Your task to perform on an android device: Add "razer blackwidow" to the cart on newegg Image 0: 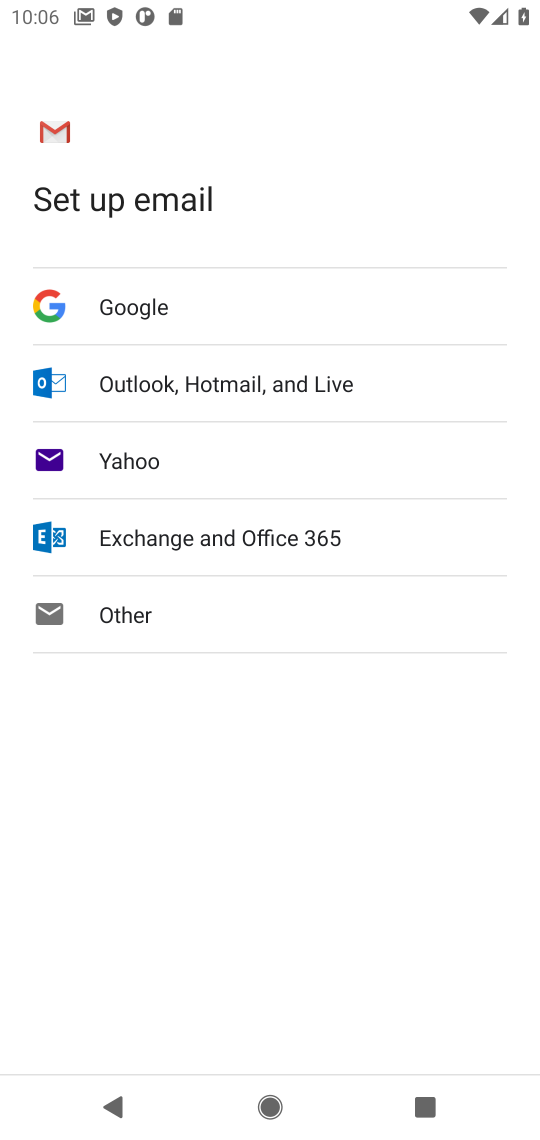
Step 0: press home button
Your task to perform on an android device: Add "razer blackwidow" to the cart on newegg Image 1: 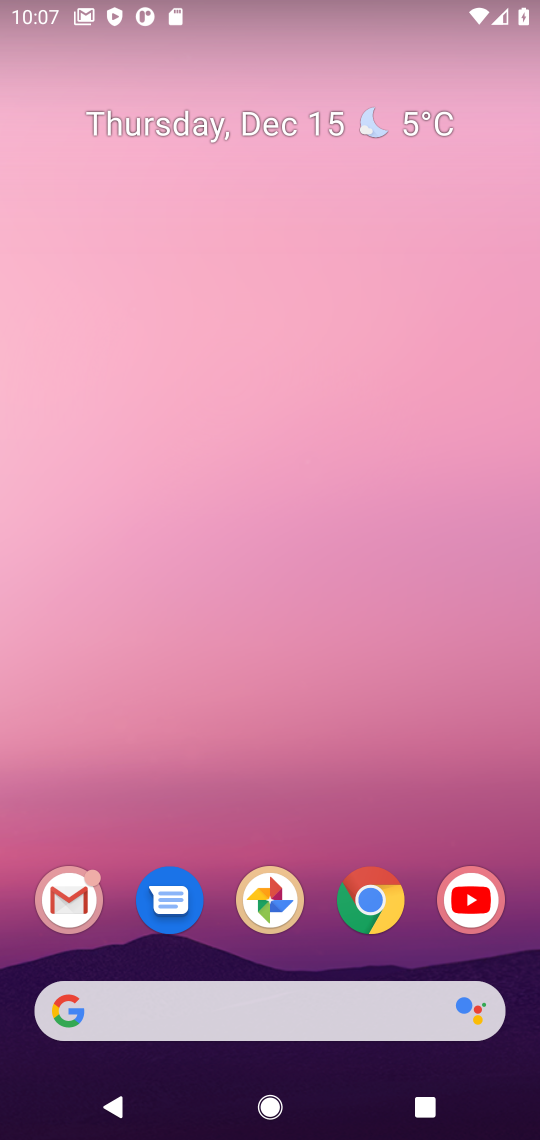
Step 1: click (367, 910)
Your task to perform on an android device: Add "razer blackwidow" to the cart on newegg Image 2: 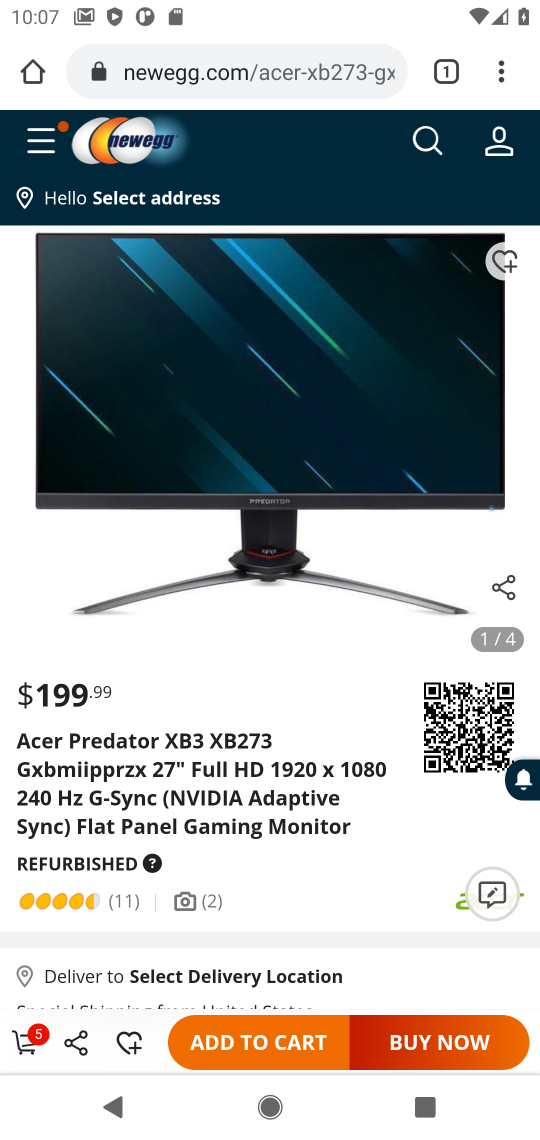
Step 2: click (207, 71)
Your task to perform on an android device: Add "razer blackwidow" to the cart on newegg Image 3: 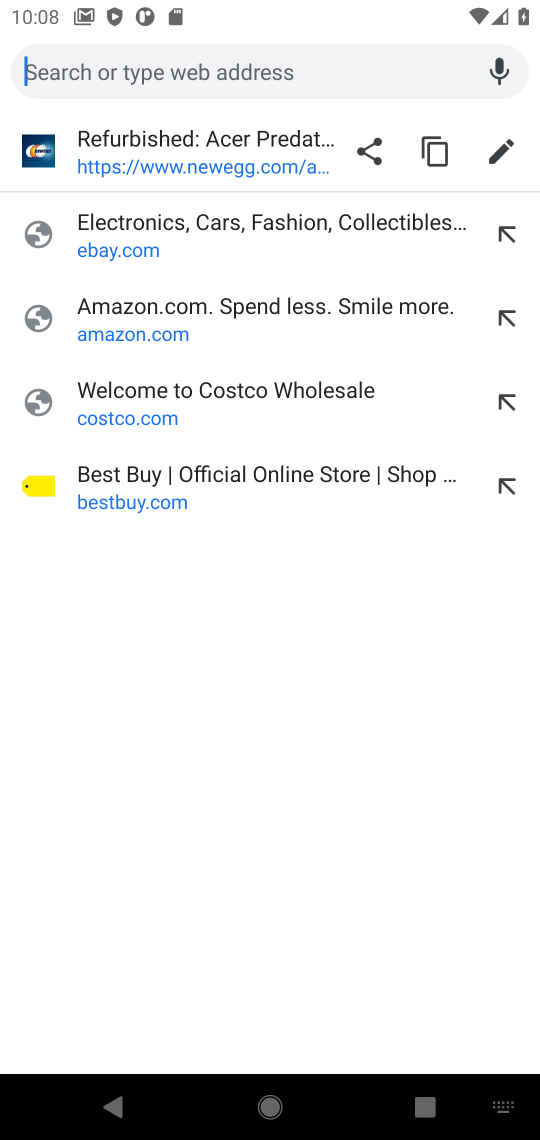
Step 3: click (202, 167)
Your task to perform on an android device: Add "razer blackwidow" to the cart on newegg Image 4: 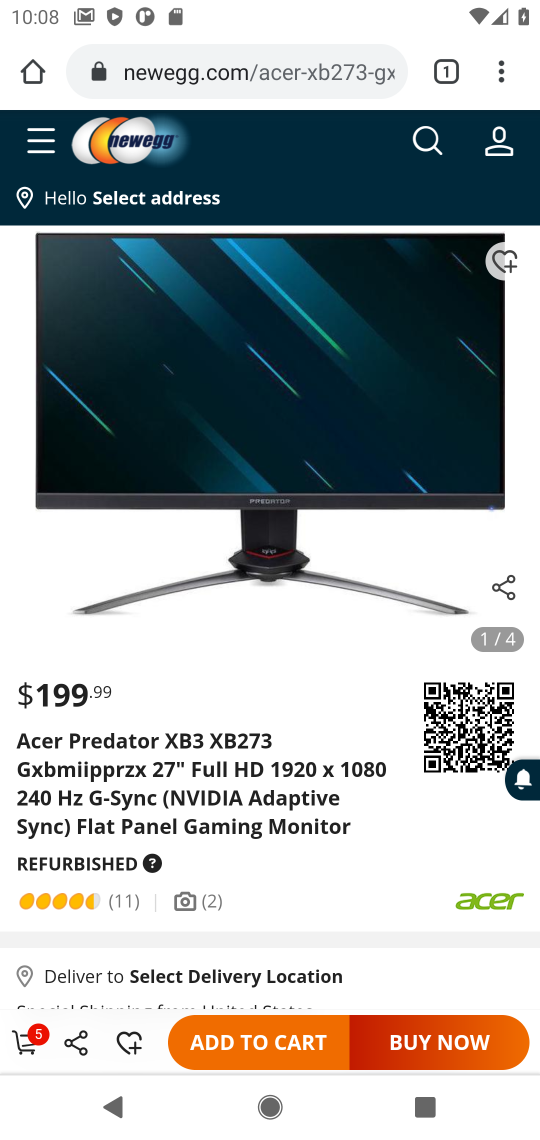
Step 4: click (431, 146)
Your task to perform on an android device: Add "razer blackwidow" to the cart on newegg Image 5: 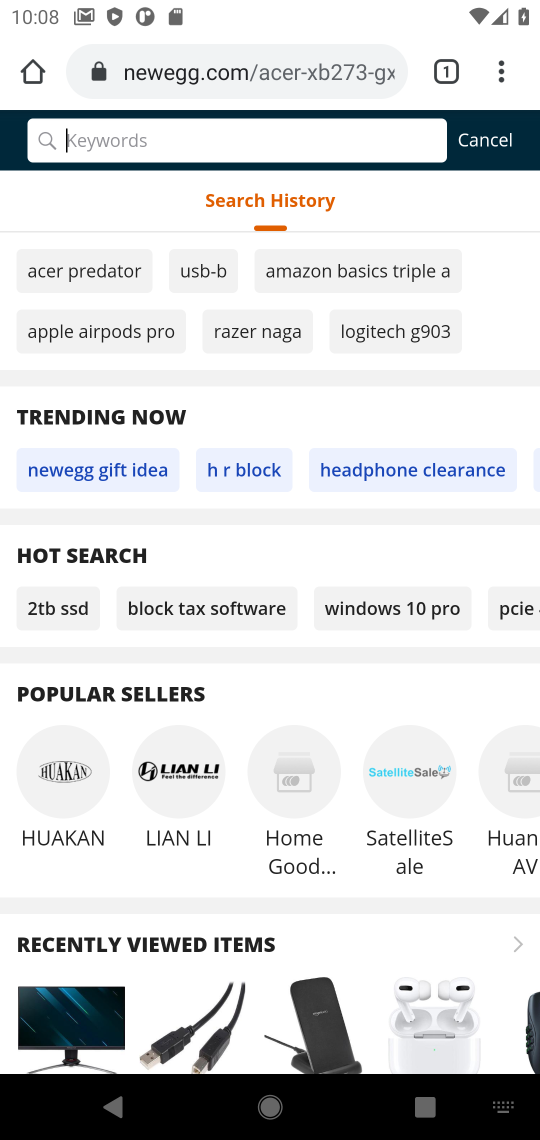
Step 5: type "razer blackwidow"
Your task to perform on an android device: Add "razer blackwidow" to the cart on newegg Image 6: 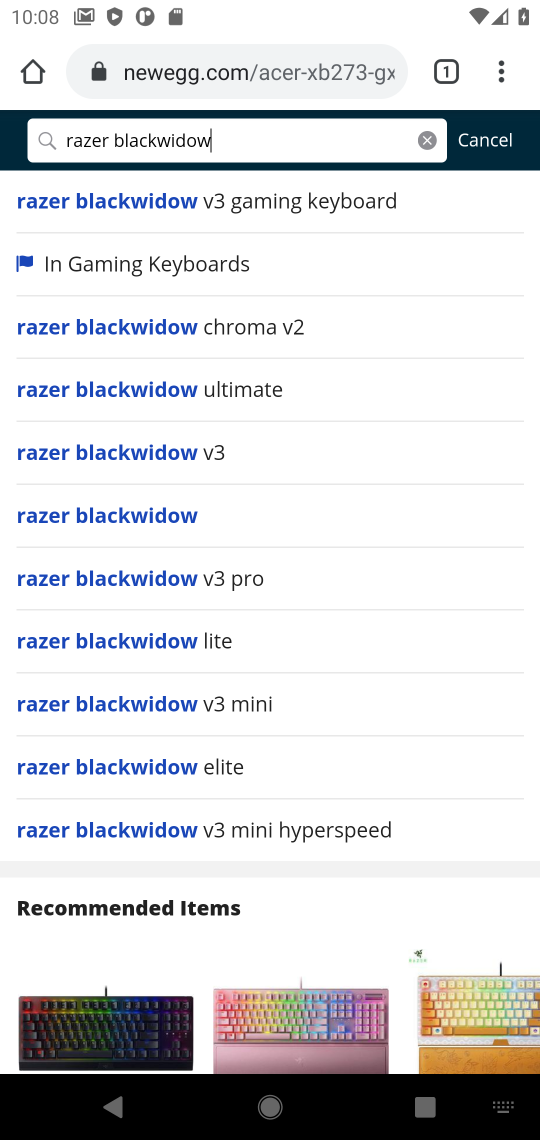
Step 6: press enter
Your task to perform on an android device: Add "razer blackwidow" to the cart on newegg Image 7: 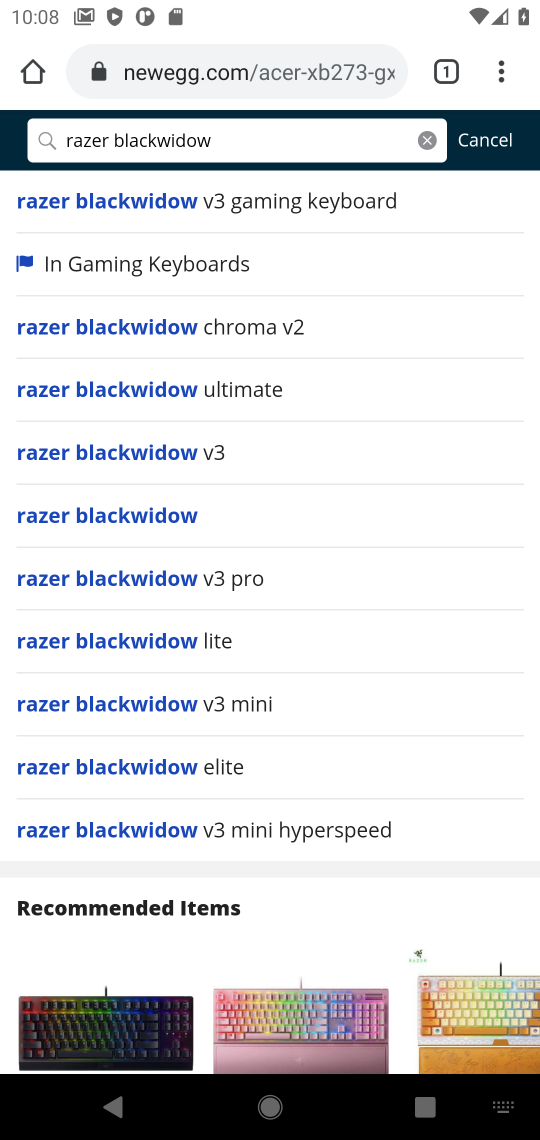
Step 7: type "\"
Your task to perform on an android device: Add "razer blackwidow" to the cart on newegg Image 8: 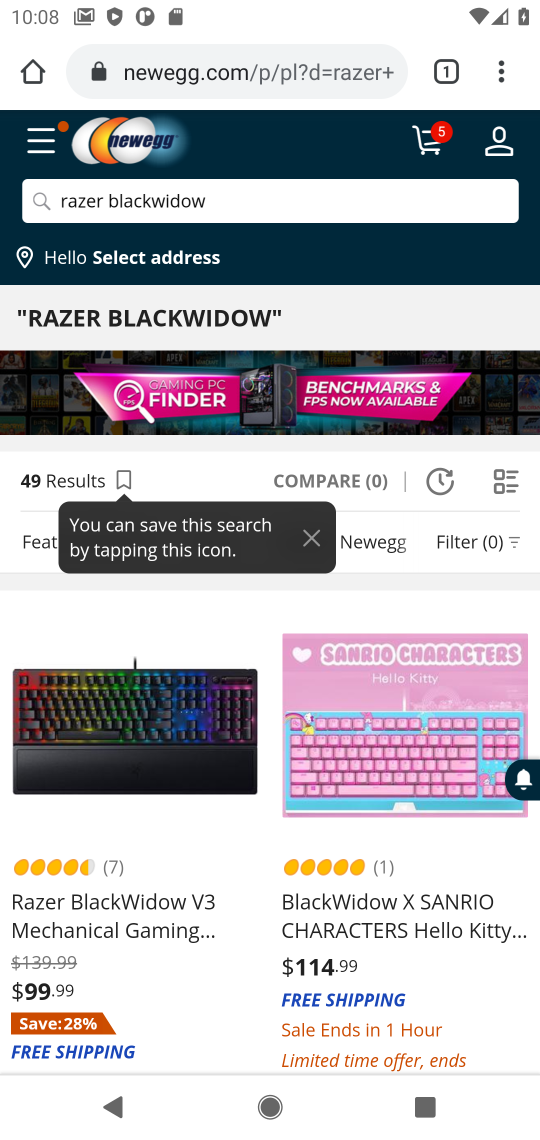
Step 8: click (117, 799)
Your task to perform on an android device: Add "razer blackwidow" to the cart on newegg Image 9: 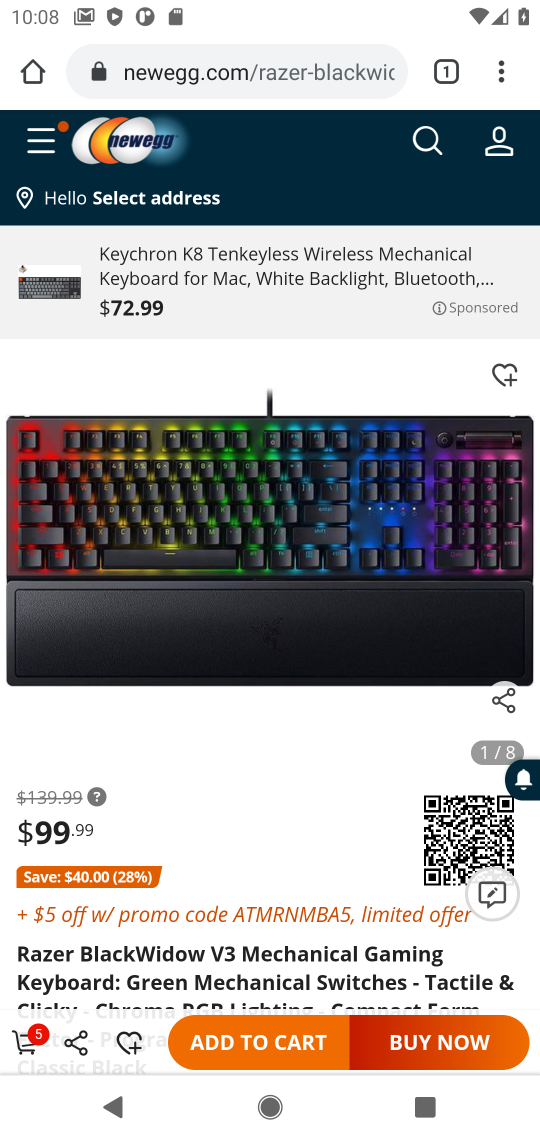
Step 9: click (249, 1053)
Your task to perform on an android device: Add "razer blackwidow" to the cart on newegg Image 10: 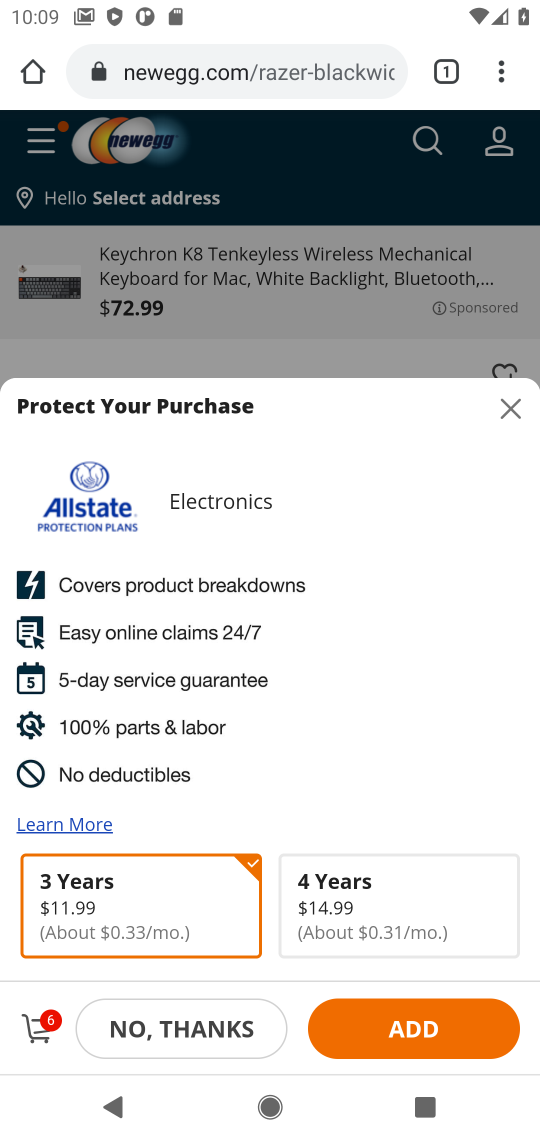
Step 10: click (420, 1026)
Your task to perform on an android device: Add "razer blackwidow" to the cart on newegg Image 11: 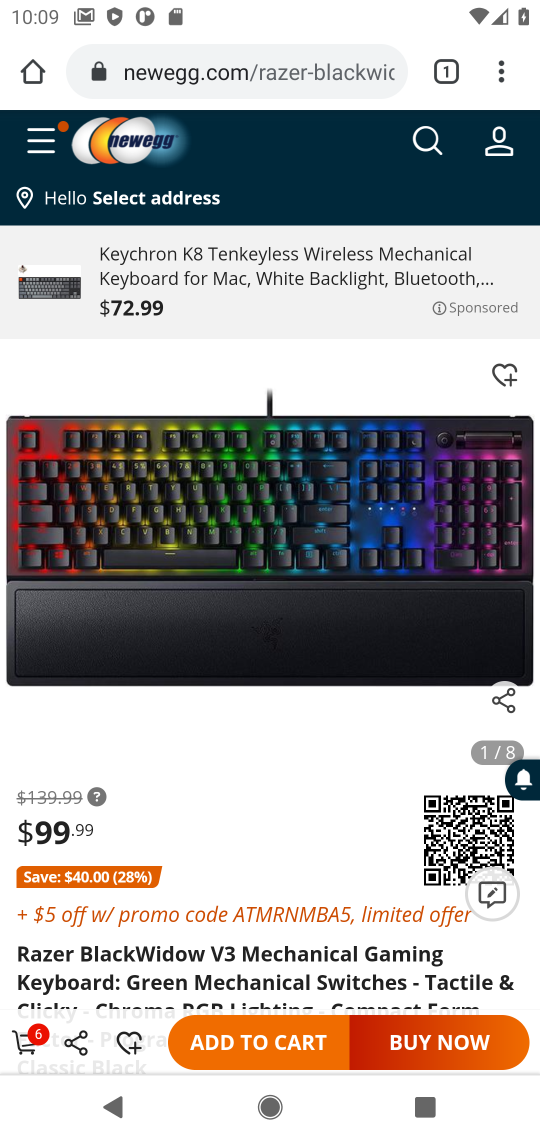
Step 11: task complete